Your task to perform on an android device: change the clock display to show seconds Image 0: 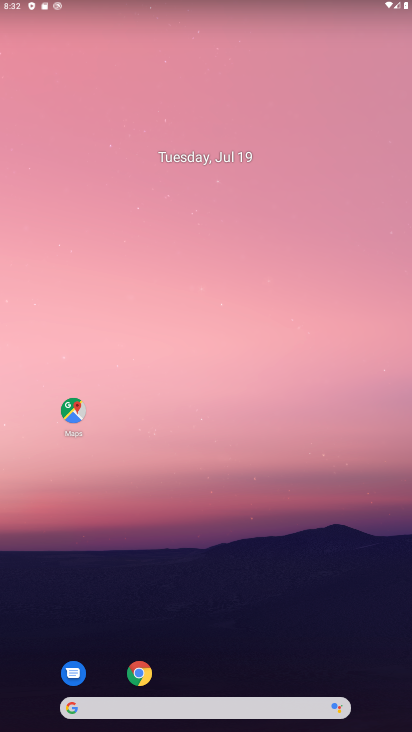
Step 0: drag from (376, 671) to (350, 187)
Your task to perform on an android device: change the clock display to show seconds Image 1: 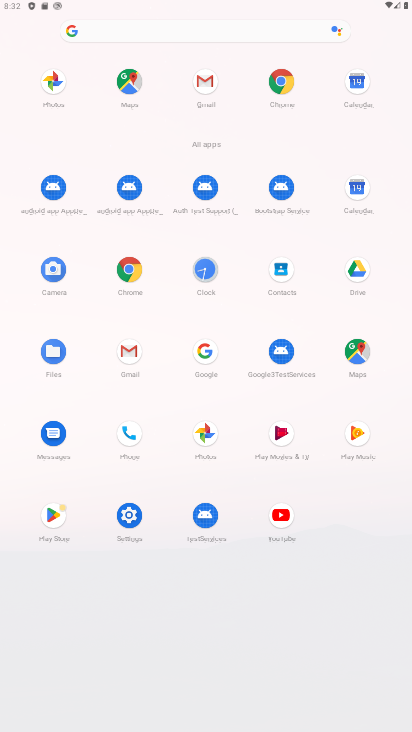
Step 1: click (203, 269)
Your task to perform on an android device: change the clock display to show seconds Image 2: 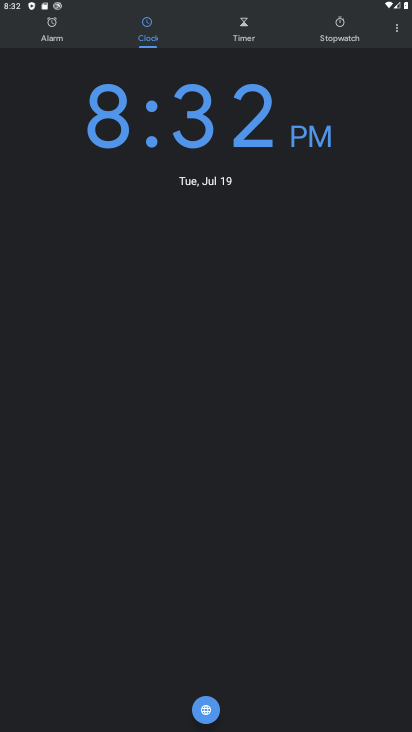
Step 2: click (396, 32)
Your task to perform on an android device: change the clock display to show seconds Image 3: 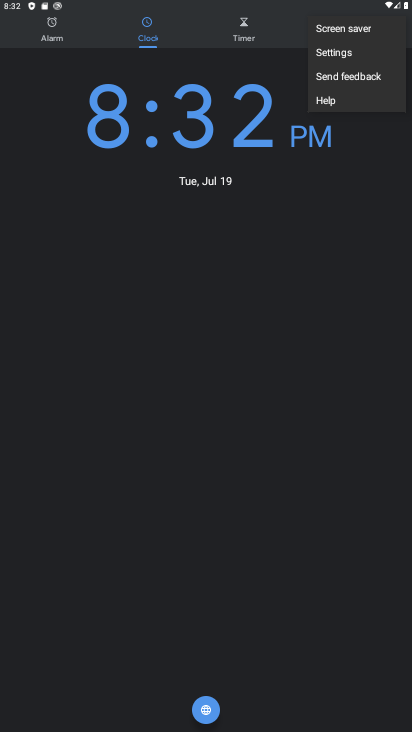
Step 3: click (373, 47)
Your task to perform on an android device: change the clock display to show seconds Image 4: 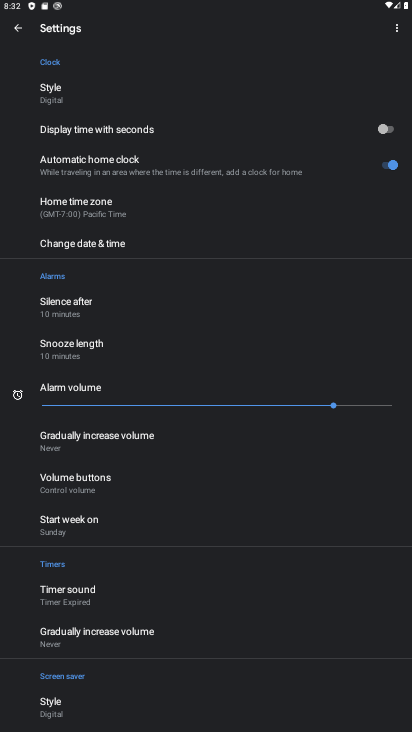
Step 4: click (395, 131)
Your task to perform on an android device: change the clock display to show seconds Image 5: 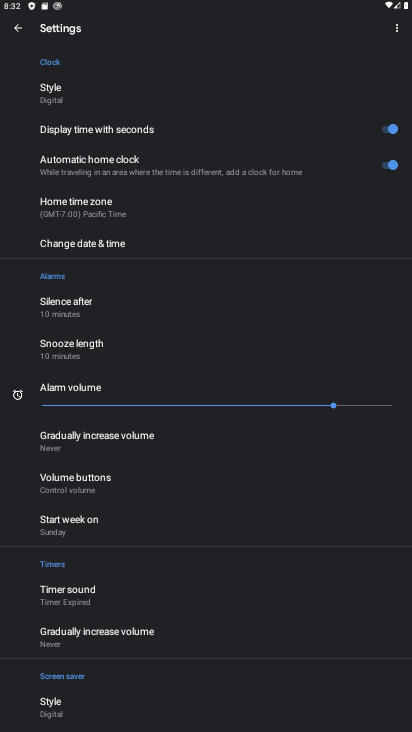
Step 5: task complete